Your task to perform on an android device: Open accessibility settings Image 0: 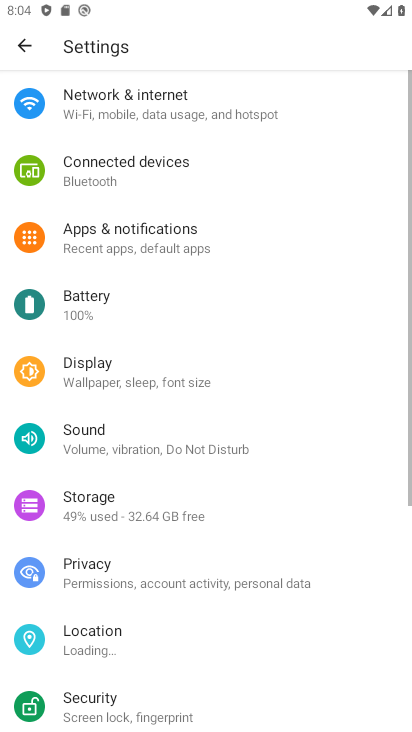
Step 0: press home button
Your task to perform on an android device: Open accessibility settings Image 1: 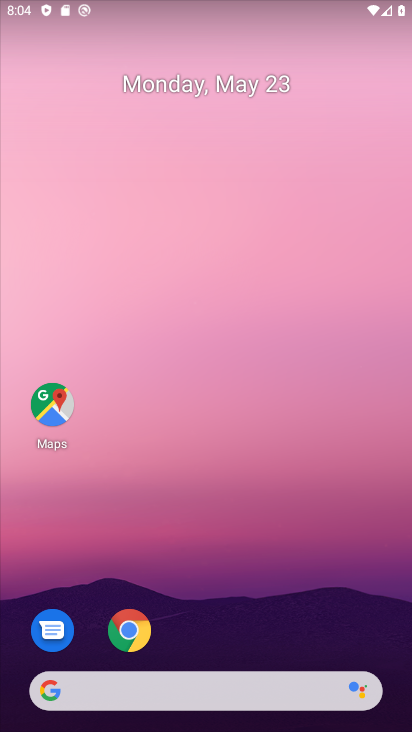
Step 1: drag from (217, 624) to (220, 6)
Your task to perform on an android device: Open accessibility settings Image 2: 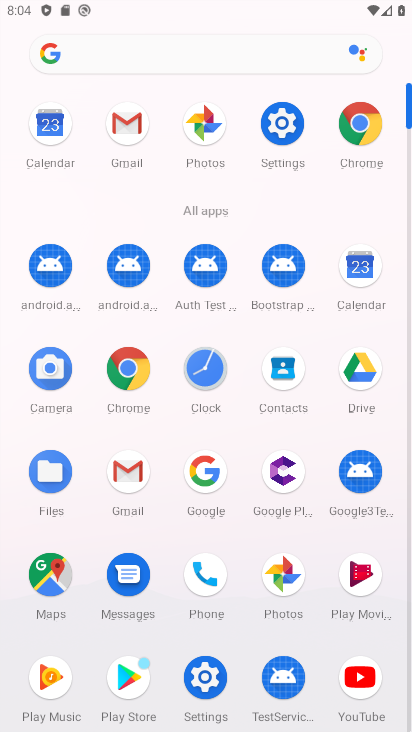
Step 2: click (286, 124)
Your task to perform on an android device: Open accessibility settings Image 3: 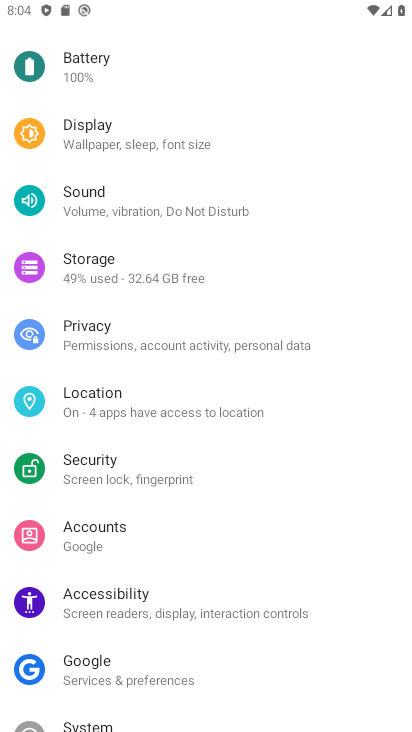
Step 3: click (152, 605)
Your task to perform on an android device: Open accessibility settings Image 4: 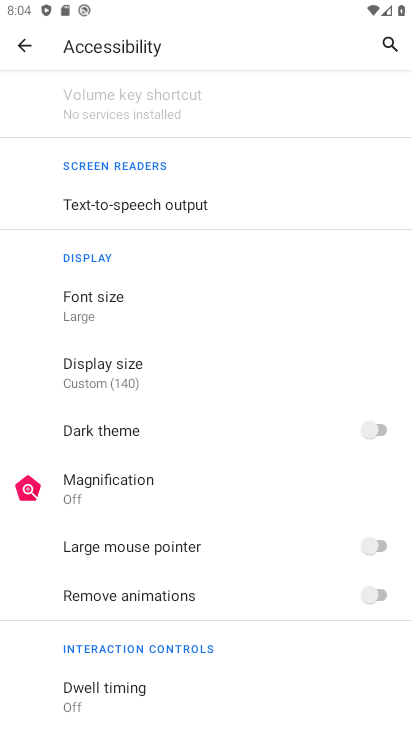
Step 4: task complete